Your task to perform on an android device: Go to display settings Image 0: 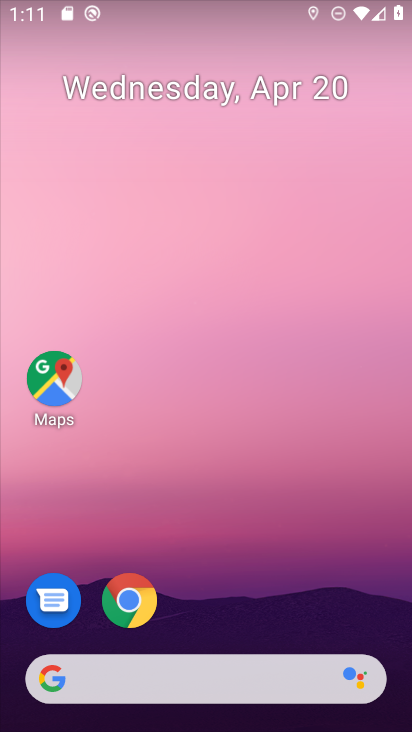
Step 0: drag from (342, 613) to (285, 226)
Your task to perform on an android device: Go to display settings Image 1: 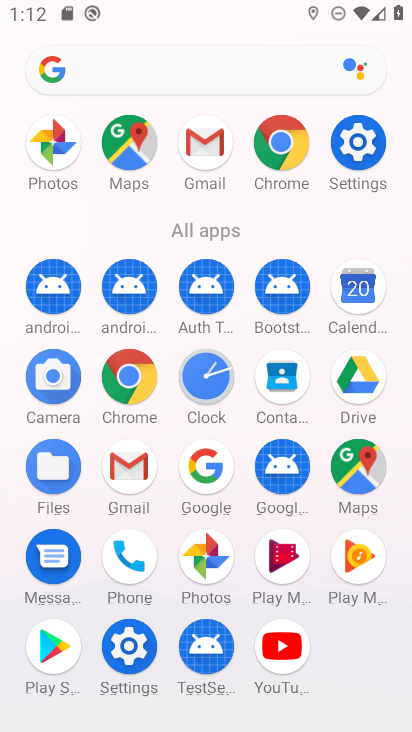
Step 1: click (127, 648)
Your task to perform on an android device: Go to display settings Image 2: 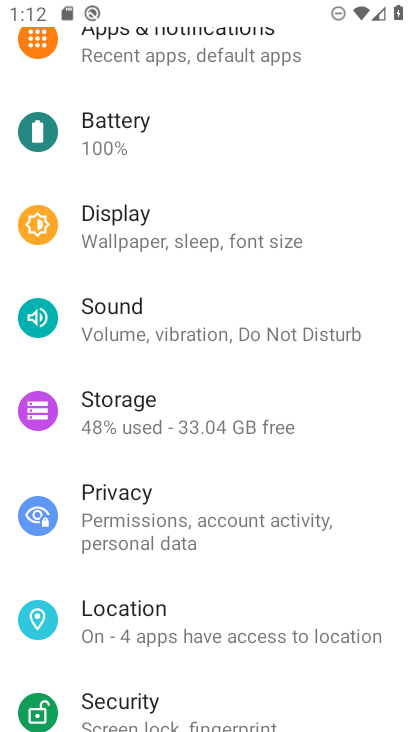
Step 2: click (122, 219)
Your task to perform on an android device: Go to display settings Image 3: 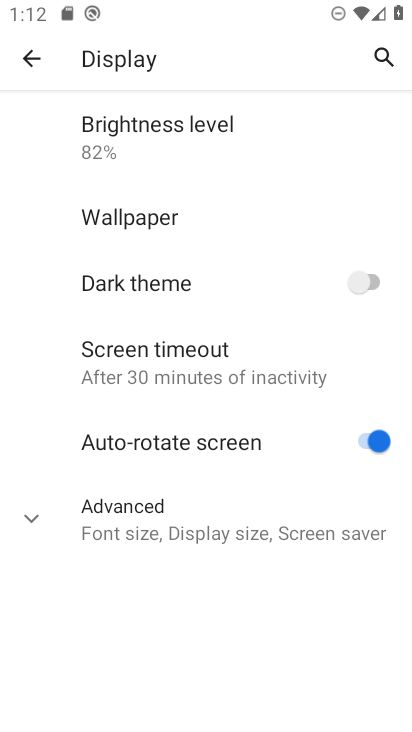
Step 3: click (30, 517)
Your task to perform on an android device: Go to display settings Image 4: 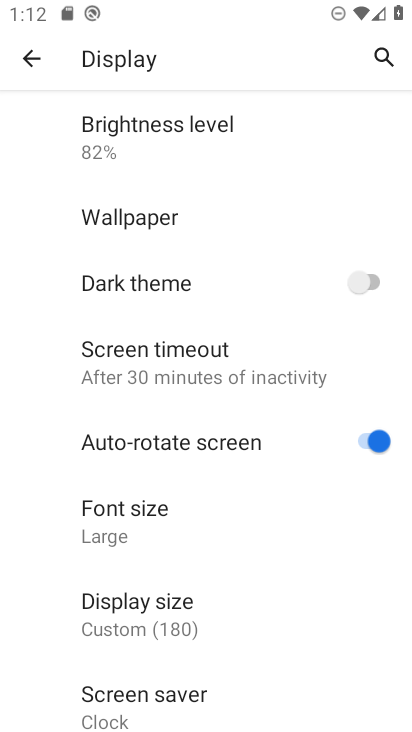
Step 4: task complete